Your task to perform on an android device: What's the weather today? Image 0: 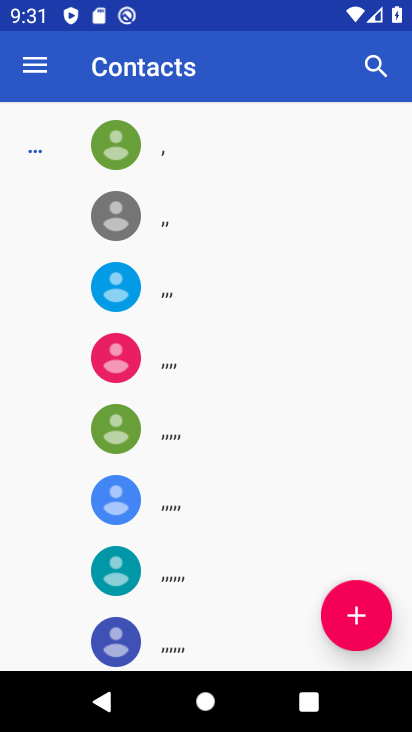
Step 0: press home button
Your task to perform on an android device: What's the weather today? Image 1: 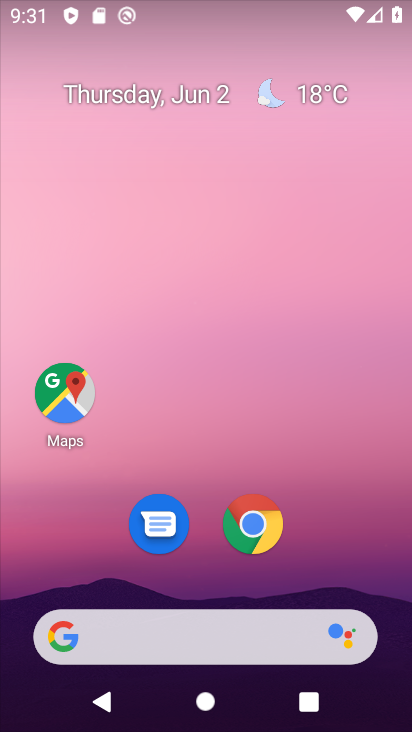
Step 1: click (298, 91)
Your task to perform on an android device: What's the weather today? Image 2: 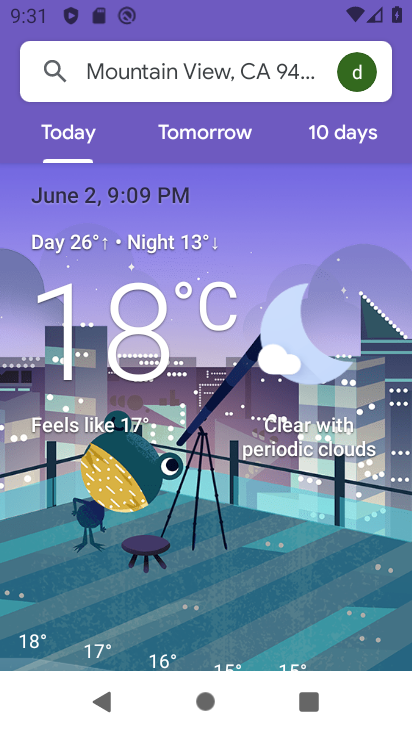
Step 2: task complete